Your task to perform on an android device: open app "LiveIn - Share Your Moment" (install if not already installed) Image 0: 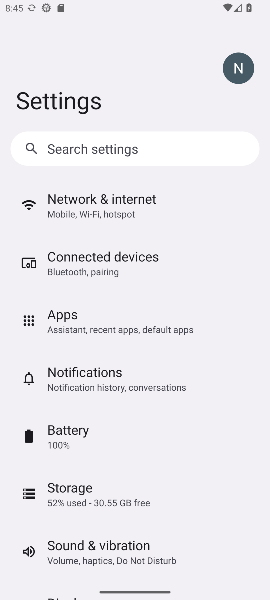
Step 0: press home button
Your task to perform on an android device: open app "LiveIn - Share Your Moment" (install if not already installed) Image 1: 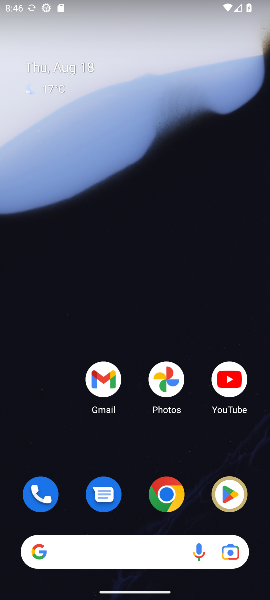
Step 1: click (232, 494)
Your task to perform on an android device: open app "LiveIn - Share Your Moment" (install if not already installed) Image 2: 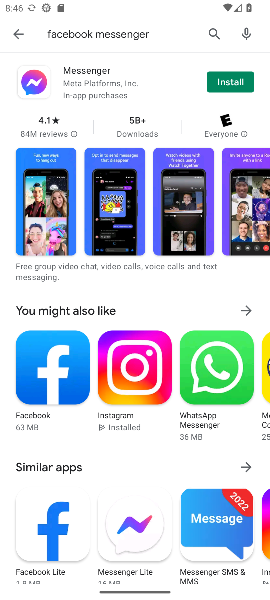
Step 2: click (213, 35)
Your task to perform on an android device: open app "LiveIn - Share Your Moment" (install if not already installed) Image 3: 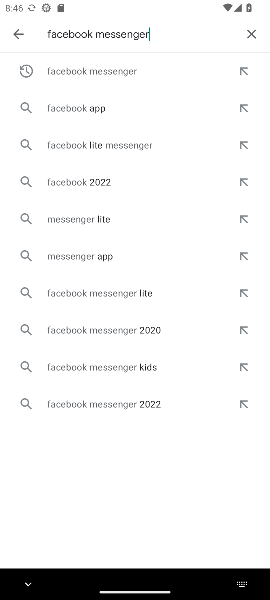
Step 3: click (249, 30)
Your task to perform on an android device: open app "LiveIn - Share Your Moment" (install if not already installed) Image 4: 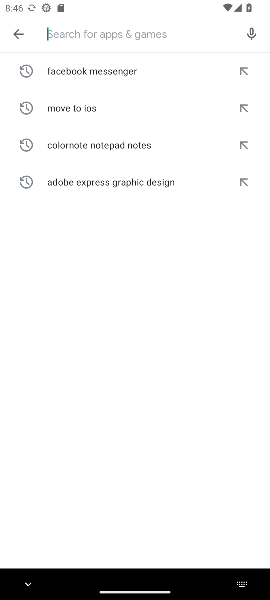
Step 4: type "LiveIn - Share Your Moment"
Your task to perform on an android device: open app "LiveIn - Share Your Moment" (install if not already installed) Image 5: 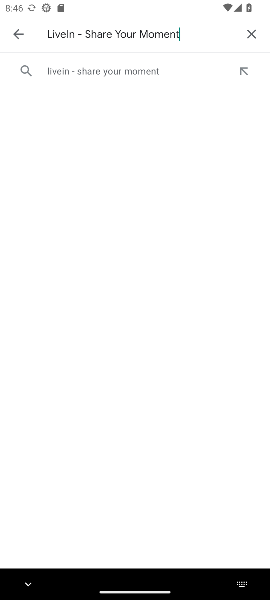
Step 5: click (99, 66)
Your task to perform on an android device: open app "LiveIn - Share Your Moment" (install if not already installed) Image 6: 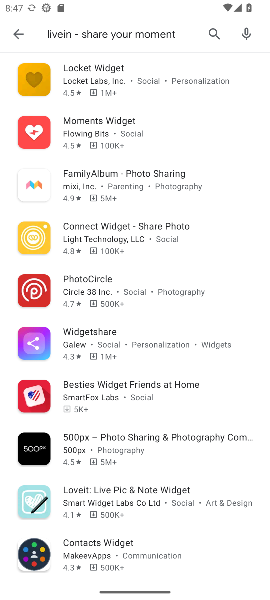
Step 6: task complete